Your task to perform on an android device: Go to Android settings Image 0: 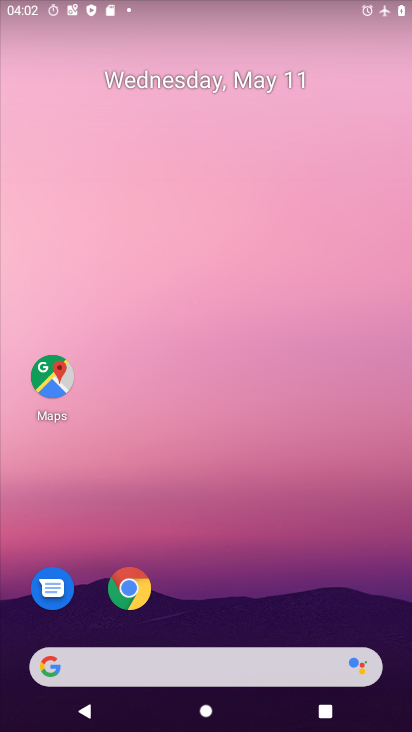
Step 0: drag from (231, 591) to (201, 131)
Your task to perform on an android device: Go to Android settings Image 1: 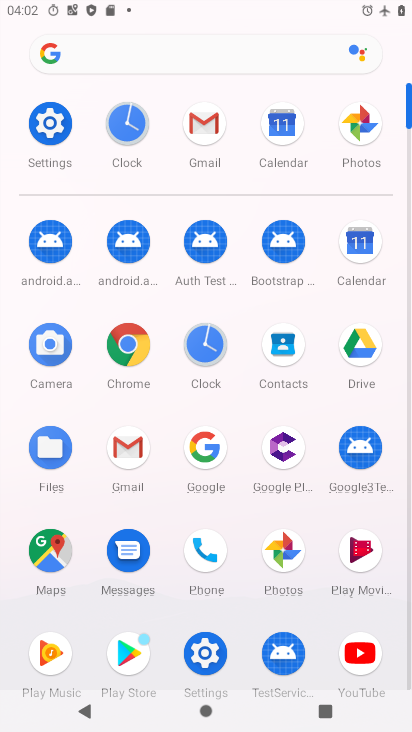
Step 1: click (59, 133)
Your task to perform on an android device: Go to Android settings Image 2: 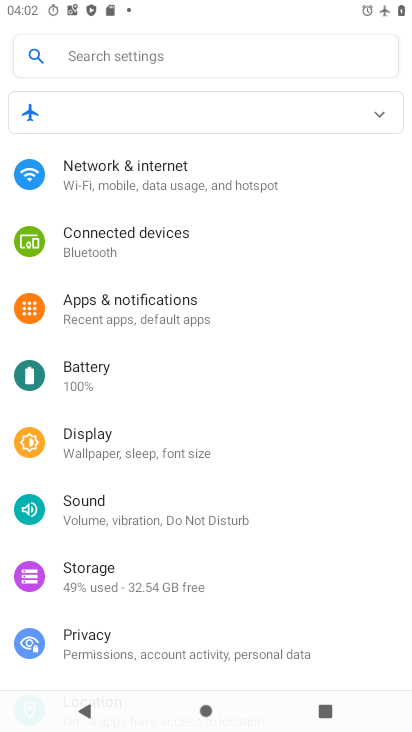
Step 2: task complete